Your task to perform on an android device: Go to Google maps Image 0: 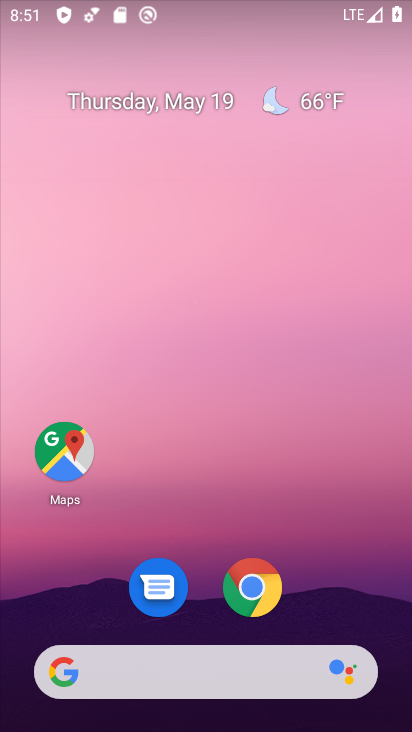
Step 0: press home button
Your task to perform on an android device: Go to Google maps Image 1: 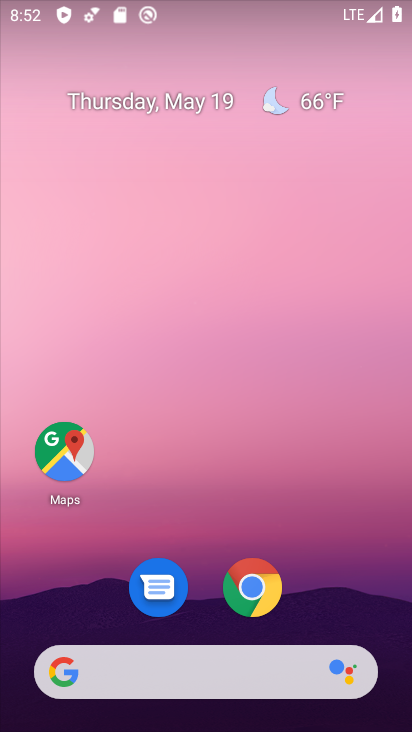
Step 1: drag from (229, 707) to (183, 238)
Your task to perform on an android device: Go to Google maps Image 2: 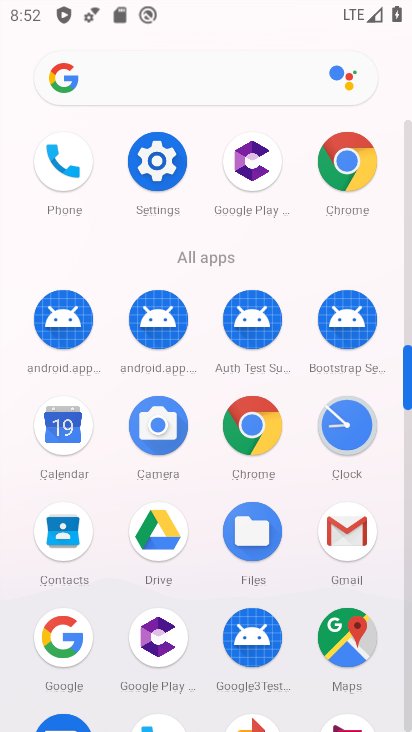
Step 2: click (349, 632)
Your task to perform on an android device: Go to Google maps Image 3: 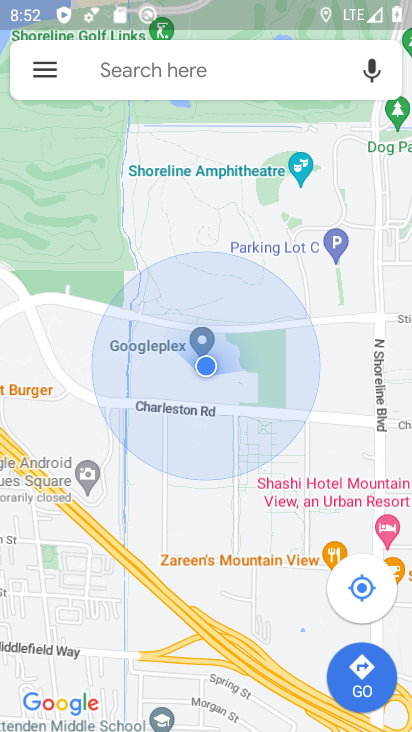
Step 3: task complete